Your task to perform on an android device: show emergency info Image 0: 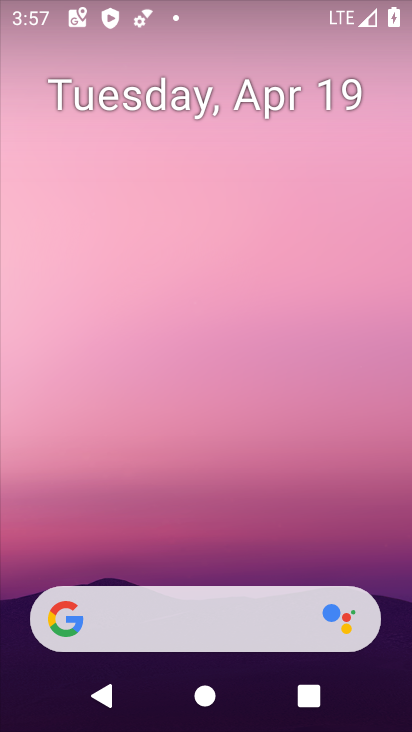
Step 0: drag from (206, 549) to (237, 127)
Your task to perform on an android device: show emergency info Image 1: 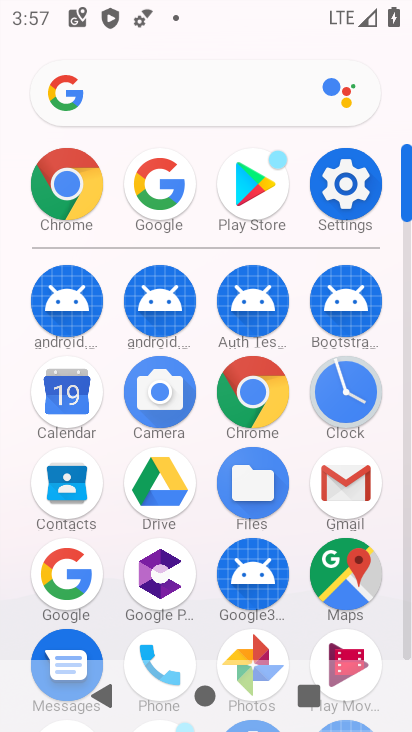
Step 1: click (345, 189)
Your task to perform on an android device: show emergency info Image 2: 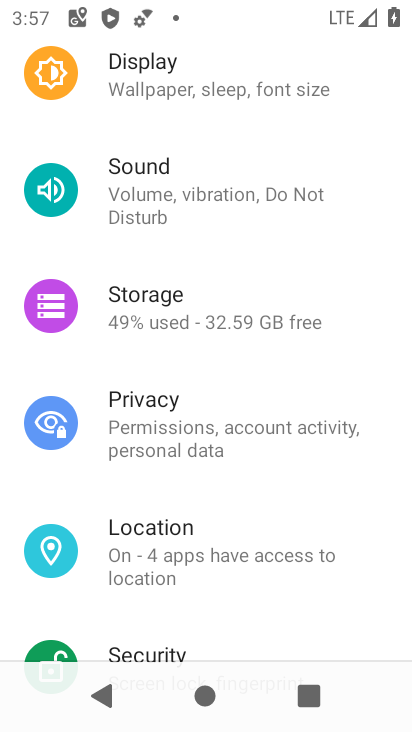
Step 2: drag from (192, 497) to (220, 367)
Your task to perform on an android device: show emergency info Image 3: 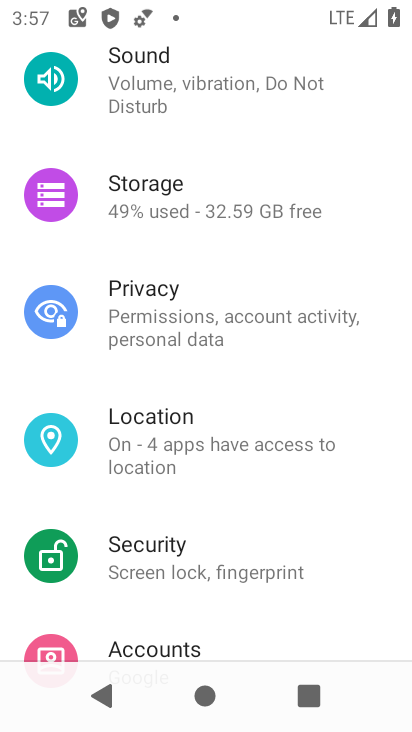
Step 3: drag from (171, 504) to (208, 387)
Your task to perform on an android device: show emergency info Image 4: 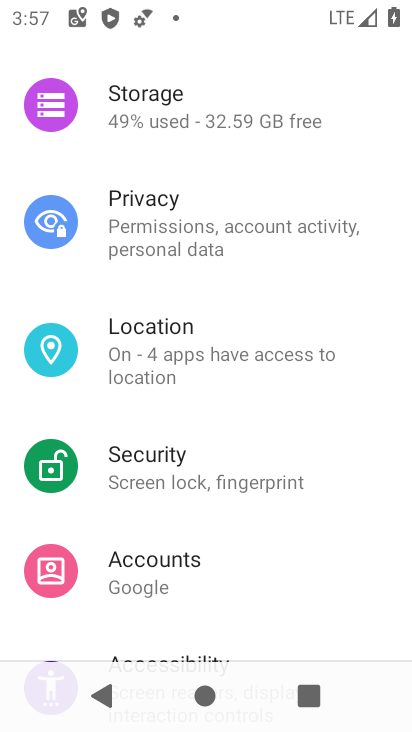
Step 4: drag from (157, 540) to (205, 413)
Your task to perform on an android device: show emergency info Image 5: 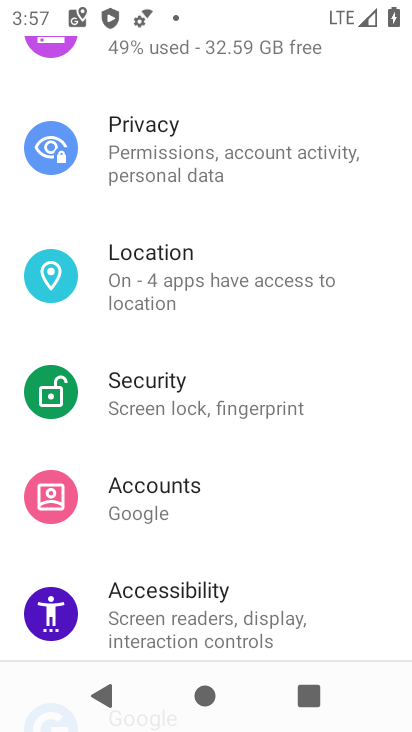
Step 5: drag from (141, 557) to (188, 447)
Your task to perform on an android device: show emergency info Image 6: 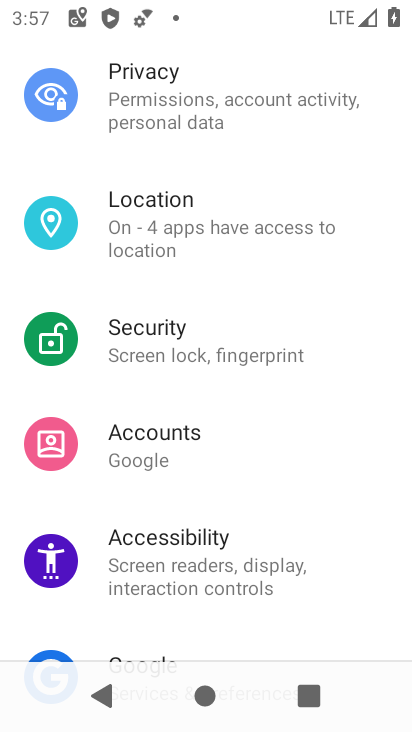
Step 6: drag from (105, 612) to (200, 459)
Your task to perform on an android device: show emergency info Image 7: 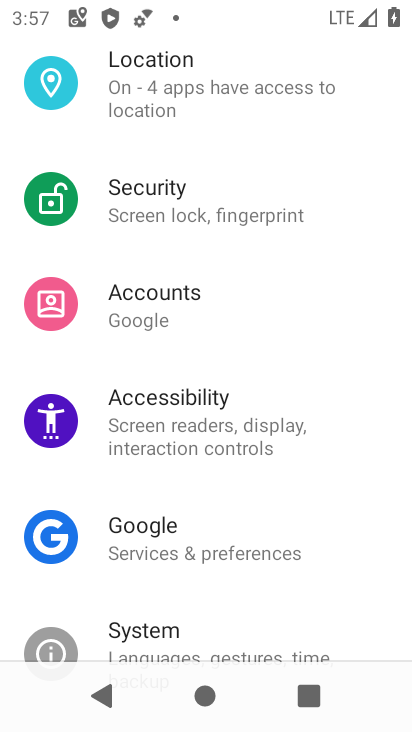
Step 7: drag from (121, 573) to (179, 472)
Your task to perform on an android device: show emergency info Image 8: 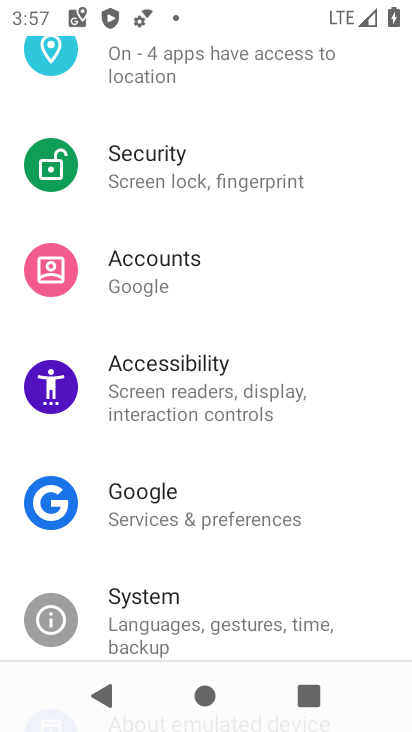
Step 8: drag from (124, 550) to (187, 447)
Your task to perform on an android device: show emergency info Image 9: 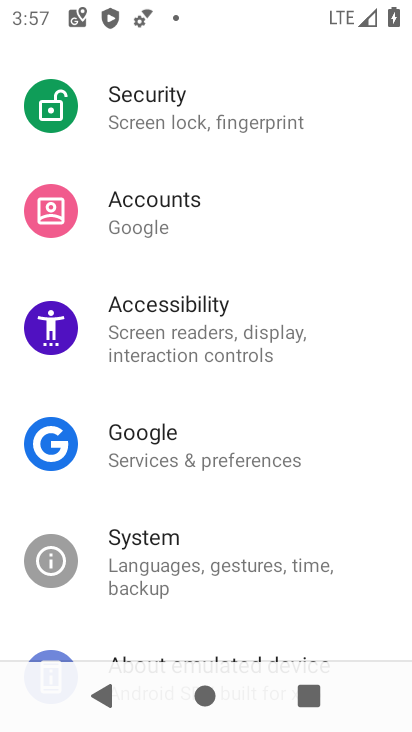
Step 9: drag from (120, 609) to (196, 492)
Your task to perform on an android device: show emergency info Image 10: 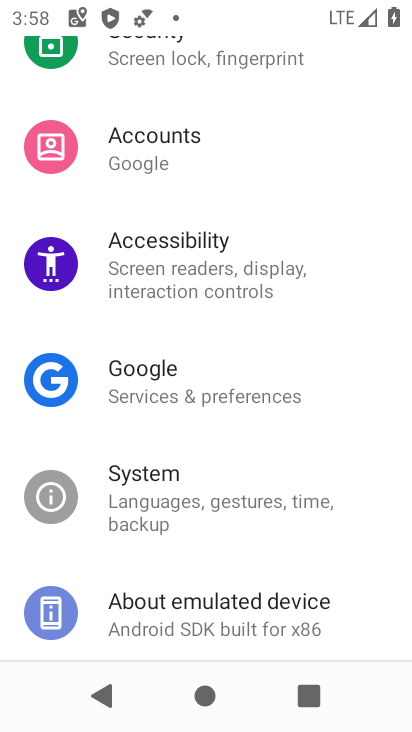
Step 10: click (142, 609)
Your task to perform on an android device: show emergency info Image 11: 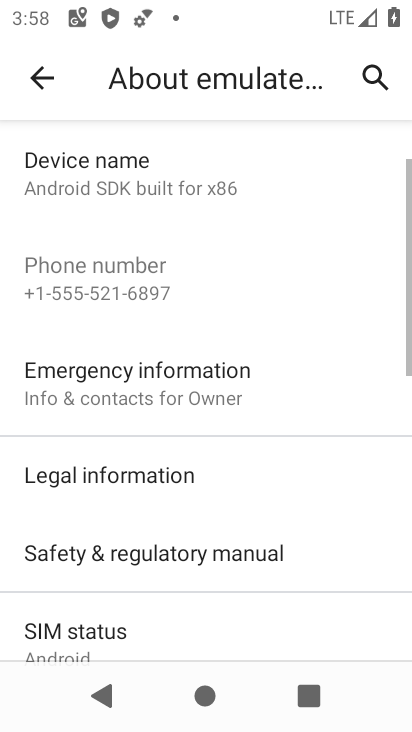
Step 11: click (154, 367)
Your task to perform on an android device: show emergency info Image 12: 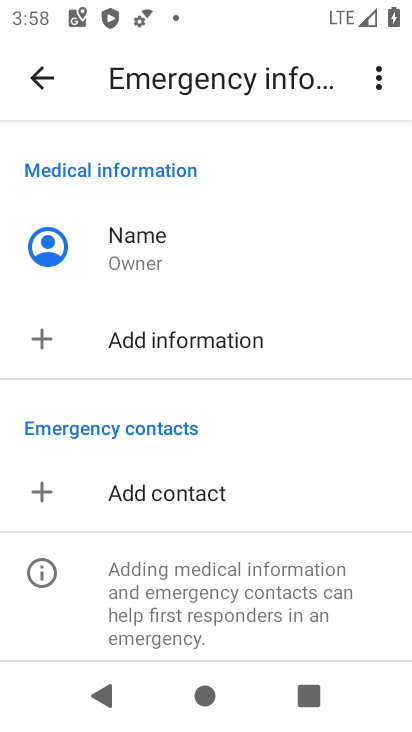
Step 12: task complete